Your task to perform on an android device: turn on showing notifications on the lock screen Image 0: 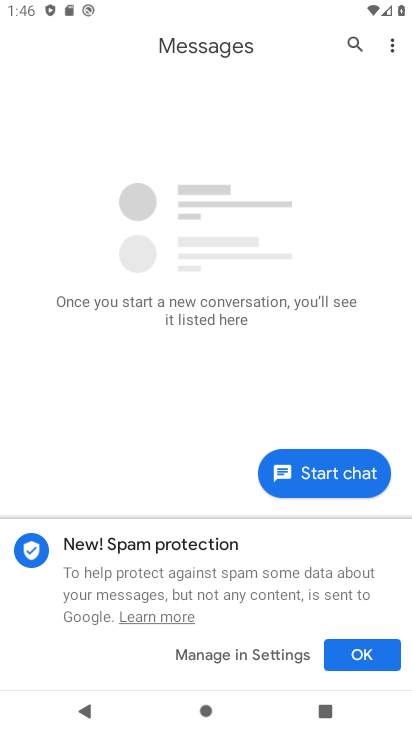
Step 0: press home button
Your task to perform on an android device: turn on showing notifications on the lock screen Image 1: 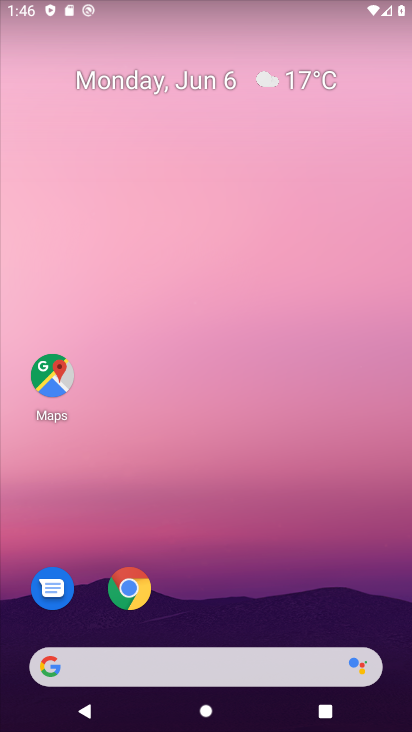
Step 1: drag from (219, 665) to (166, 61)
Your task to perform on an android device: turn on showing notifications on the lock screen Image 2: 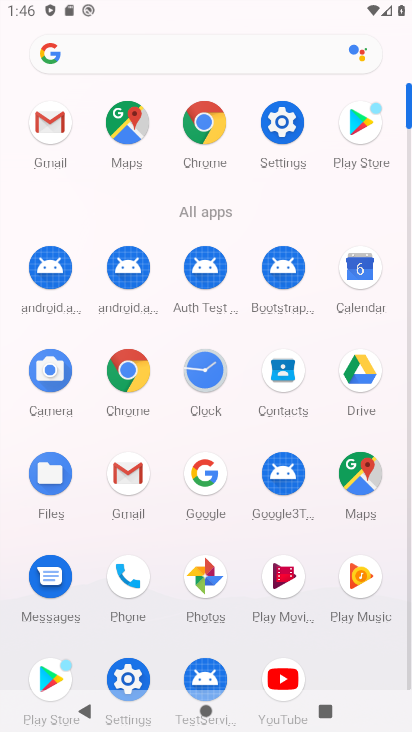
Step 2: click (284, 115)
Your task to perform on an android device: turn on showing notifications on the lock screen Image 3: 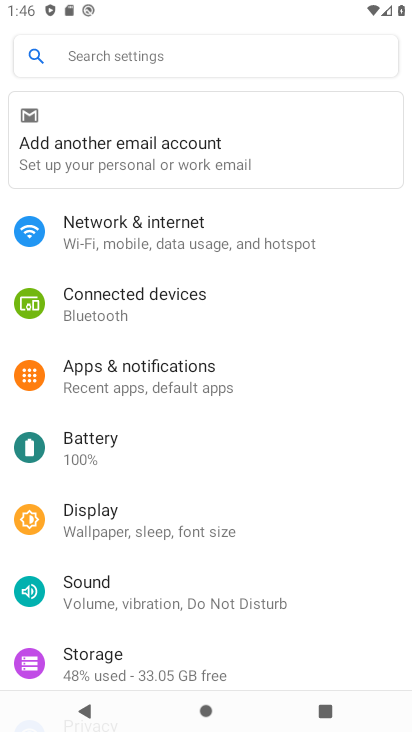
Step 3: drag from (151, 467) to (159, 147)
Your task to perform on an android device: turn on showing notifications on the lock screen Image 4: 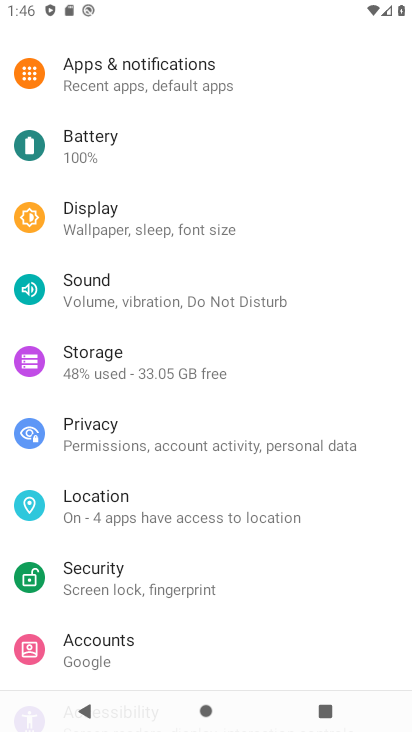
Step 4: click (109, 68)
Your task to perform on an android device: turn on showing notifications on the lock screen Image 5: 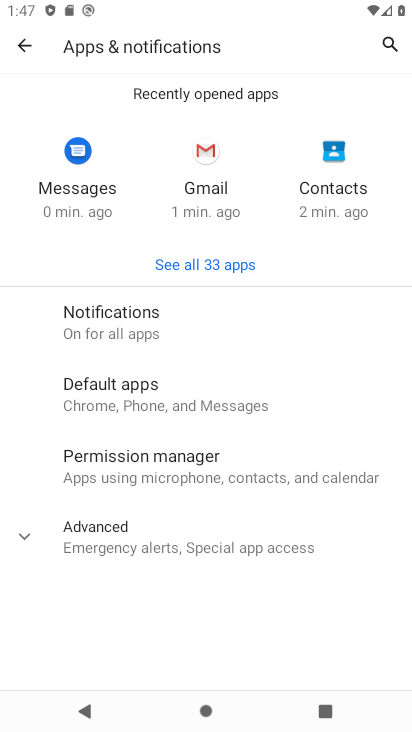
Step 5: click (183, 329)
Your task to perform on an android device: turn on showing notifications on the lock screen Image 6: 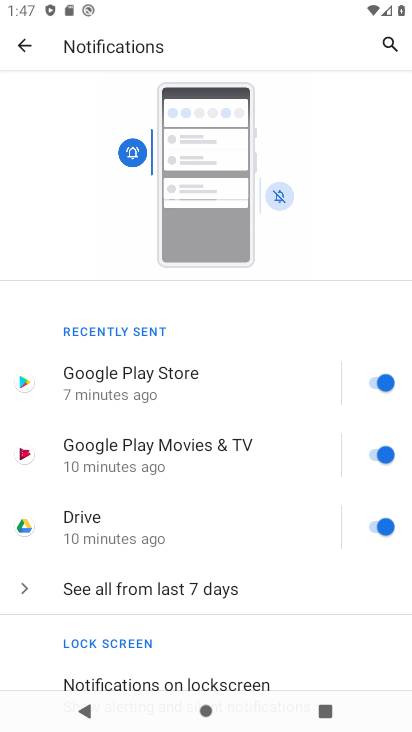
Step 6: drag from (172, 611) to (250, 28)
Your task to perform on an android device: turn on showing notifications on the lock screen Image 7: 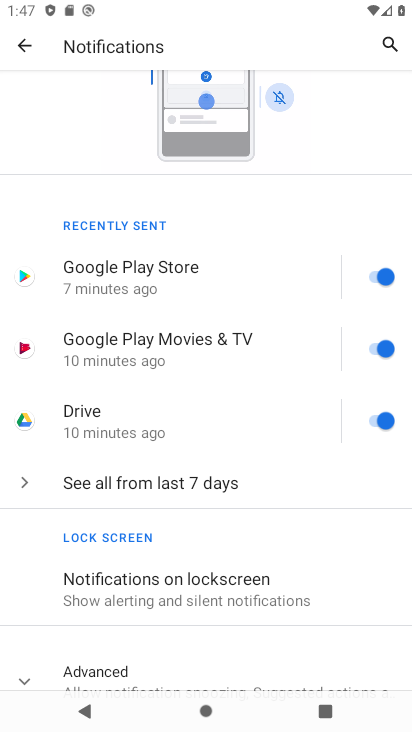
Step 7: click (168, 592)
Your task to perform on an android device: turn on showing notifications on the lock screen Image 8: 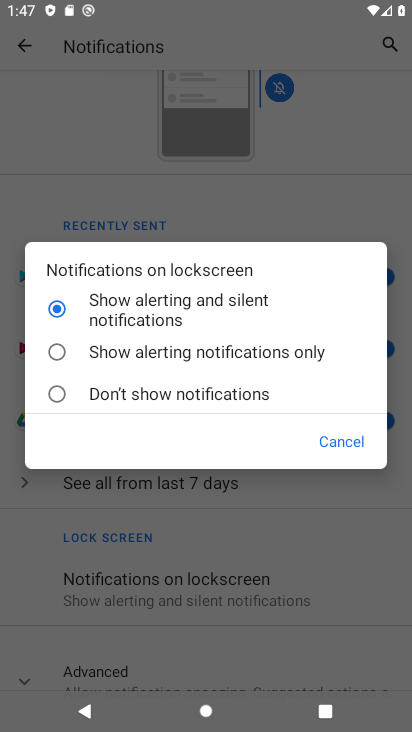
Step 8: click (188, 285)
Your task to perform on an android device: turn on showing notifications on the lock screen Image 9: 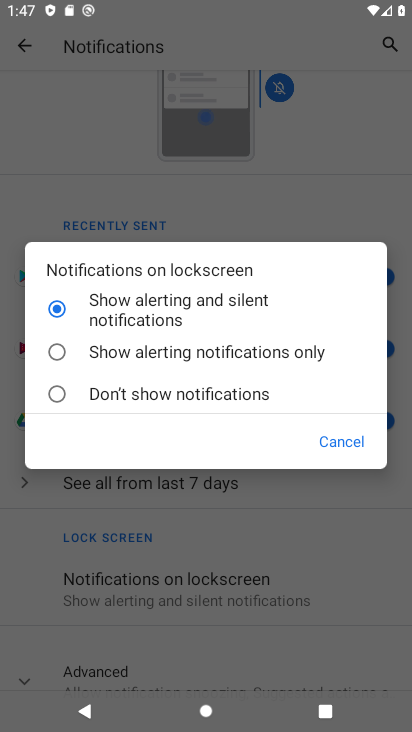
Step 9: click (216, 308)
Your task to perform on an android device: turn on showing notifications on the lock screen Image 10: 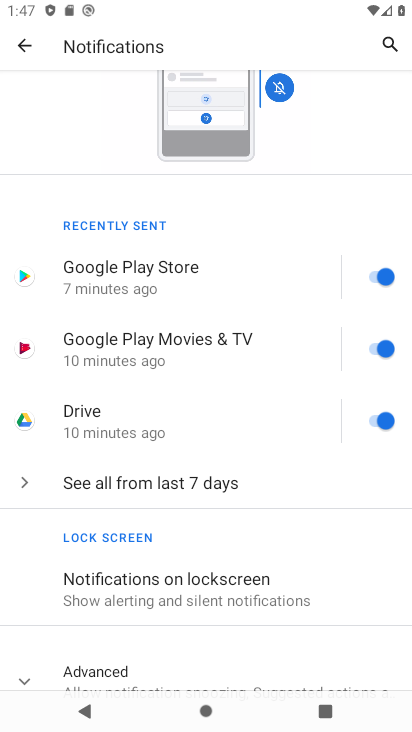
Step 10: task complete